Your task to perform on an android device: find which apps use the phone's location Image 0: 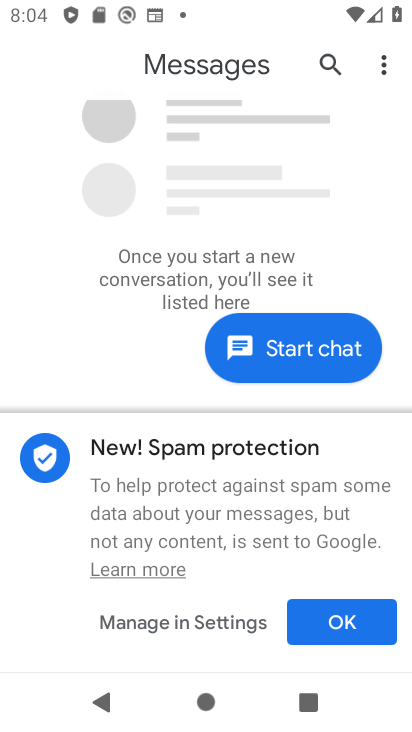
Step 0: press home button
Your task to perform on an android device: find which apps use the phone's location Image 1: 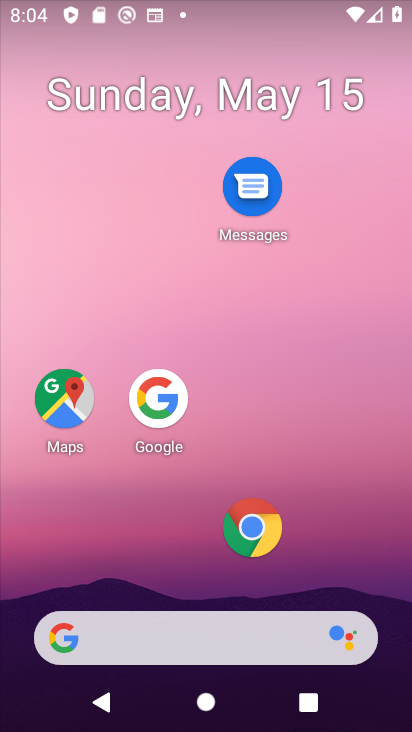
Step 1: drag from (177, 632) to (283, 329)
Your task to perform on an android device: find which apps use the phone's location Image 2: 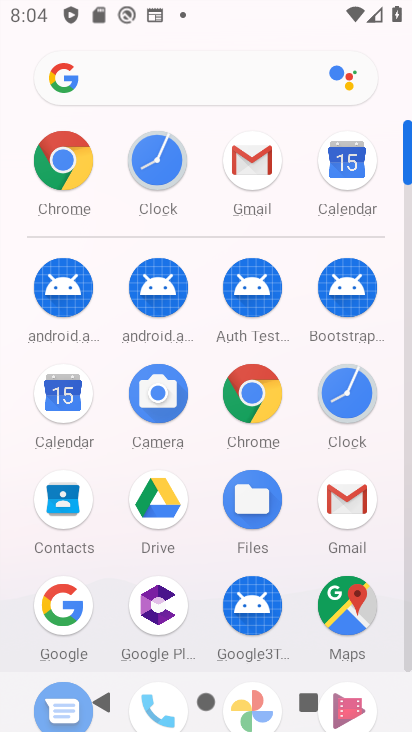
Step 2: drag from (212, 592) to (364, 90)
Your task to perform on an android device: find which apps use the phone's location Image 3: 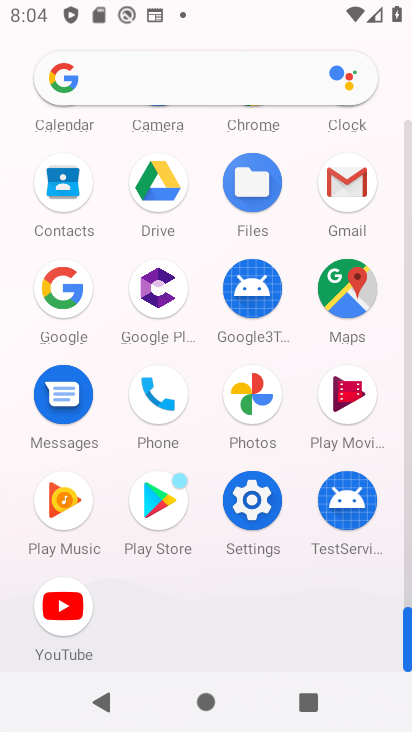
Step 3: click (258, 514)
Your task to perform on an android device: find which apps use the phone's location Image 4: 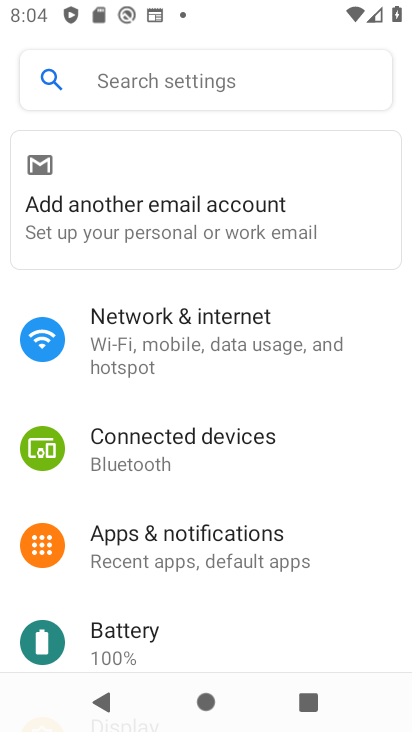
Step 4: drag from (205, 628) to (316, 245)
Your task to perform on an android device: find which apps use the phone's location Image 5: 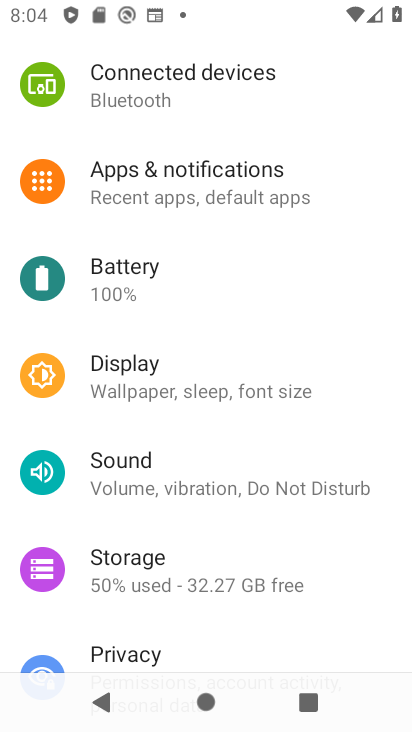
Step 5: drag from (188, 631) to (272, 237)
Your task to perform on an android device: find which apps use the phone's location Image 6: 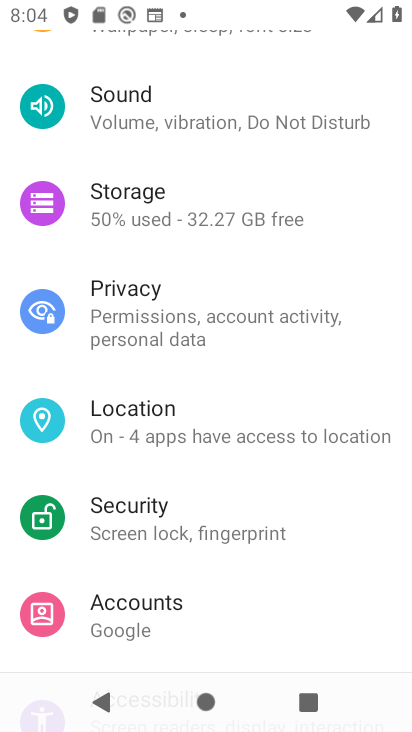
Step 6: click (133, 420)
Your task to perform on an android device: find which apps use the phone's location Image 7: 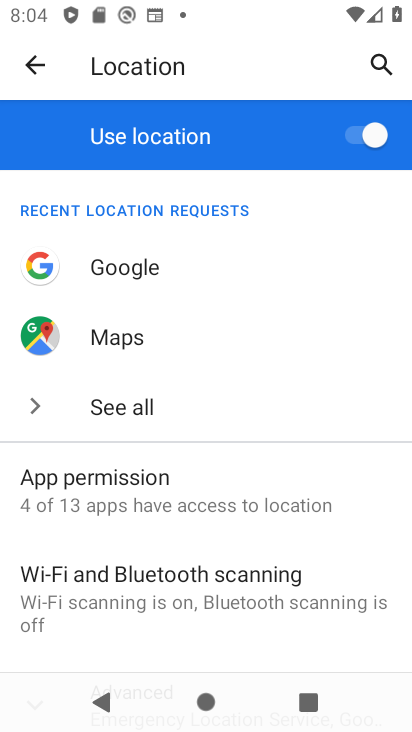
Step 7: click (120, 493)
Your task to perform on an android device: find which apps use the phone's location Image 8: 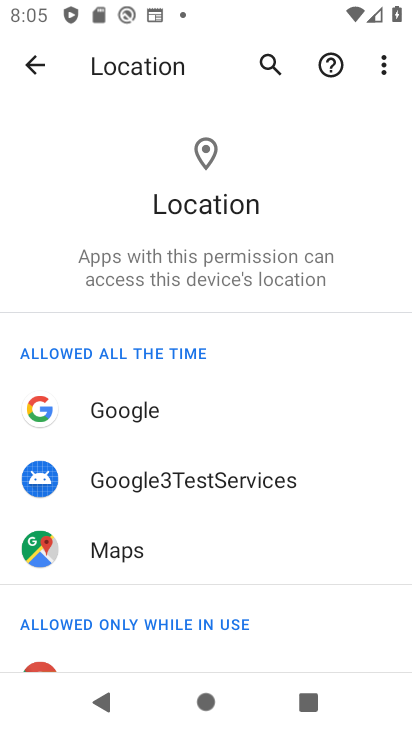
Step 8: drag from (208, 587) to (294, 247)
Your task to perform on an android device: find which apps use the phone's location Image 9: 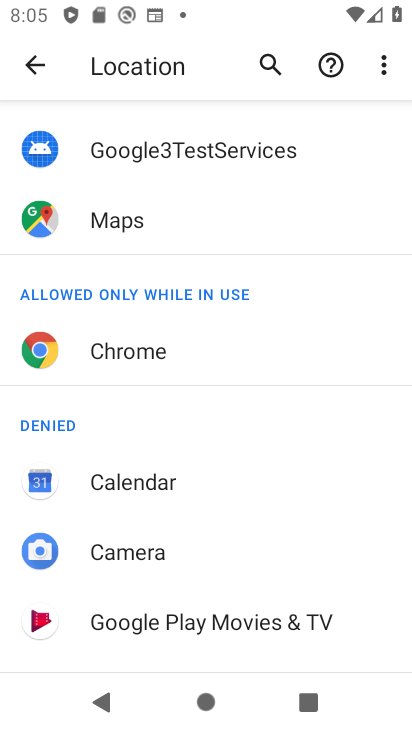
Step 9: drag from (226, 607) to (269, 117)
Your task to perform on an android device: find which apps use the phone's location Image 10: 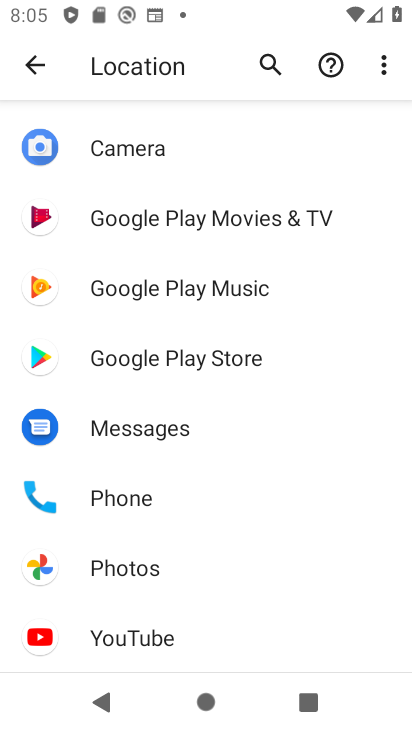
Step 10: click (132, 496)
Your task to perform on an android device: find which apps use the phone's location Image 11: 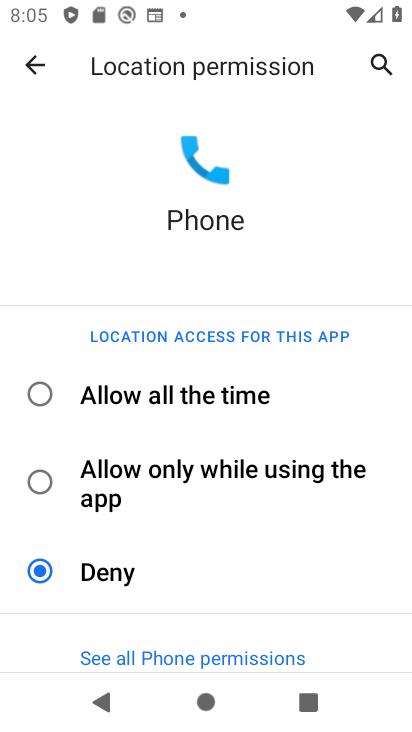
Step 11: task complete